Your task to perform on an android device: Go to privacy settings Image 0: 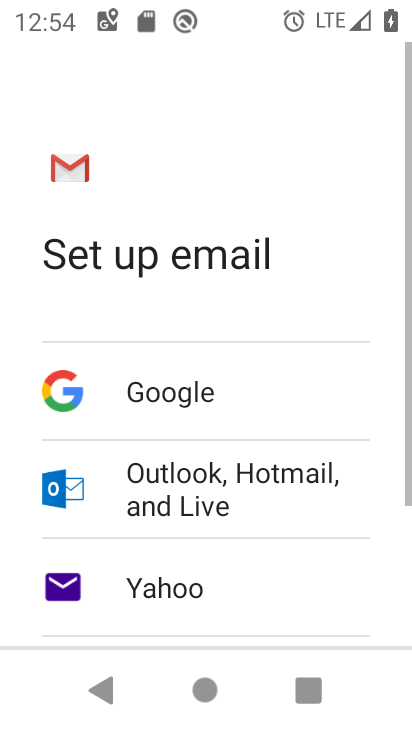
Step 0: press home button
Your task to perform on an android device: Go to privacy settings Image 1: 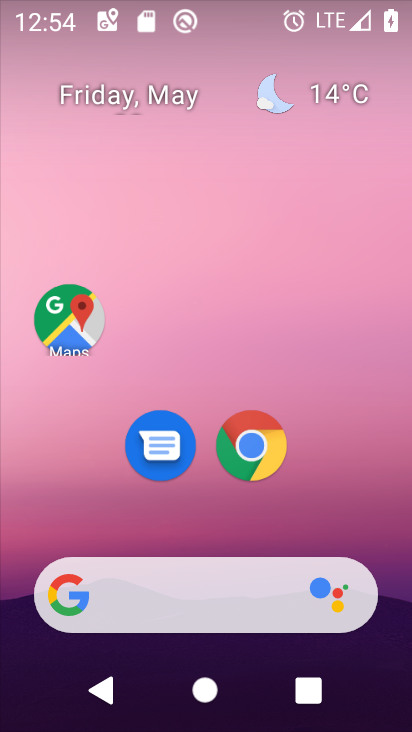
Step 1: drag from (71, 553) to (327, 164)
Your task to perform on an android device: Go to privacy settings Image 2: 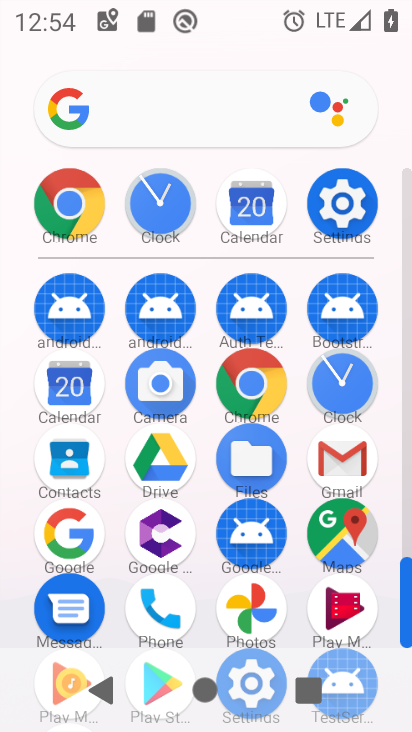
Step 2: click (341, 212)
Your task to perform on an android device: Go to privacy settings Image 3: 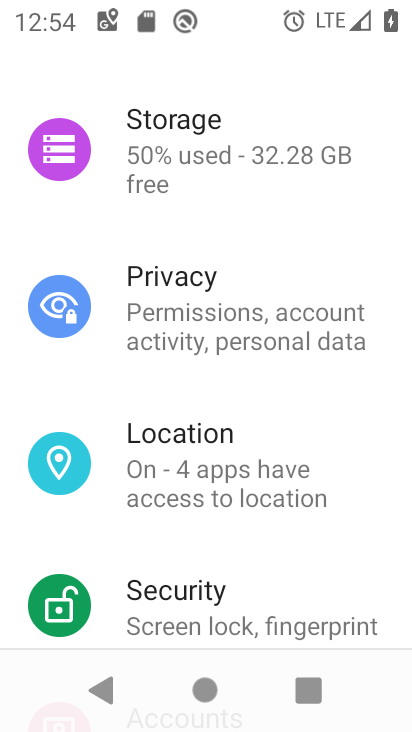
Step 3: click (194, 321)
Your task to perform on an android device: Go to privacy settings Image 4: 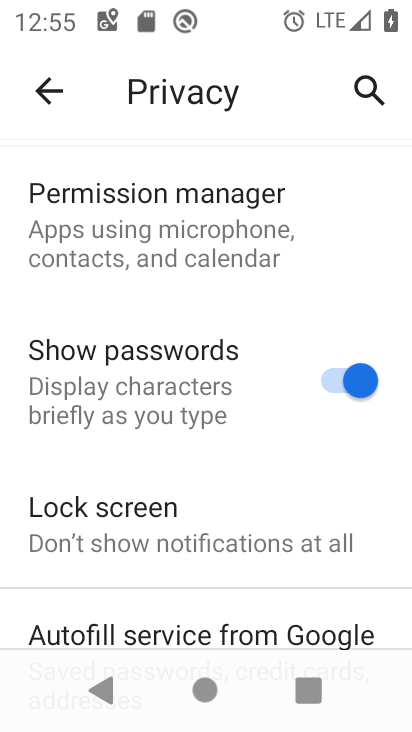
Step 4: task complete